Your task to perform on an android device: turn on airplane mode Image 0: 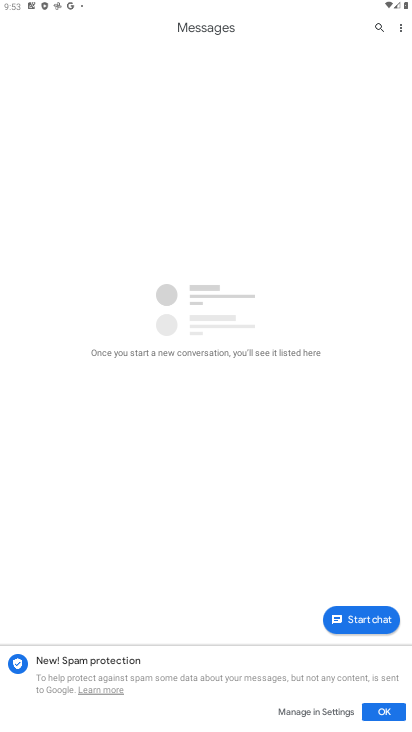
Step 0: task complete